Your task to perform on an android device: see creations saved in the google photos Image 0: 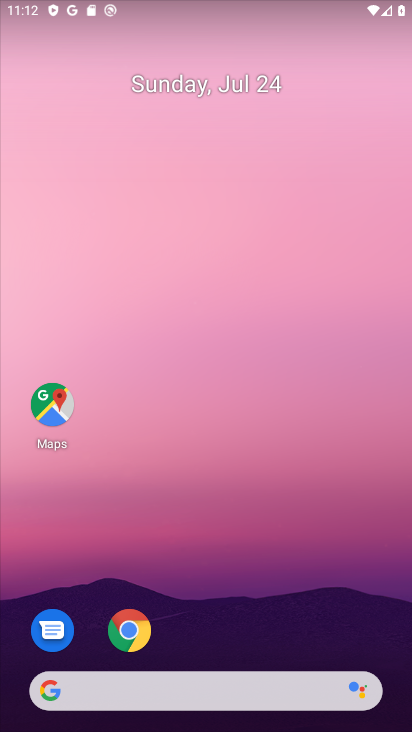
Step 0: drag from (240, 523) to (258, 3)
Your task to perform on an android device: see creations saved in the google photos Image 1: 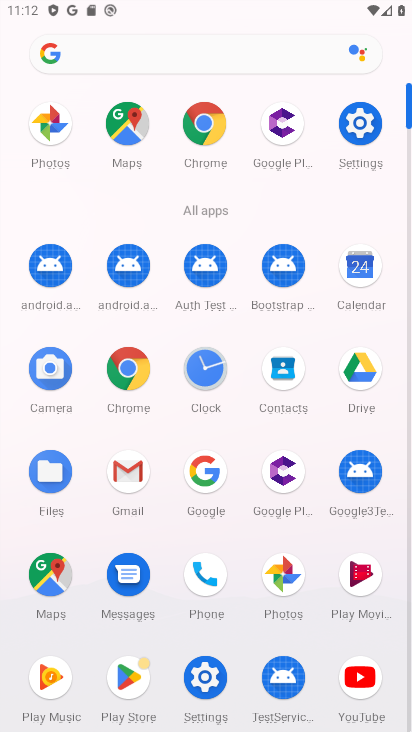
Step 1: click (266, 569)
Your task to perform on an android device: see creations saved in the google photos Image 2: 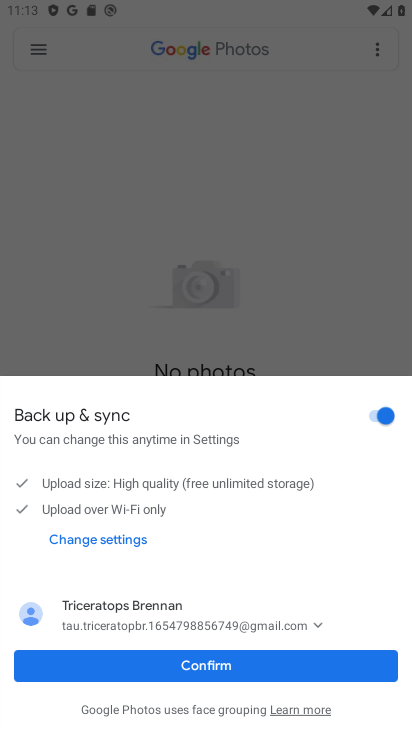
Step 2: click (139, 660)
Your task to perform on an android device: see creations saved in the google photos Image 3: 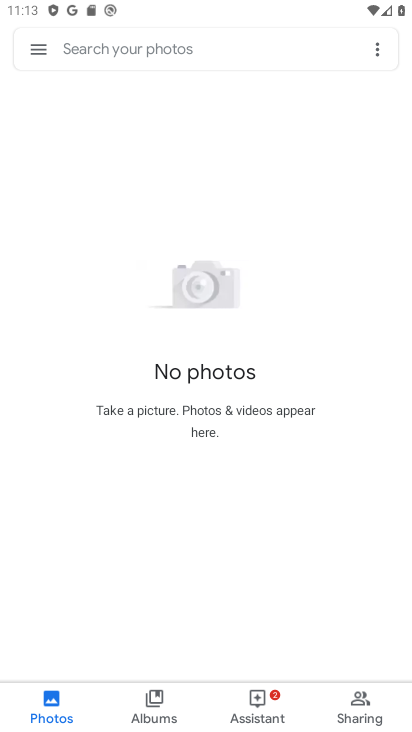
Step 3: task complete